Your task to perform on an android device: toggle wifi Image 0: 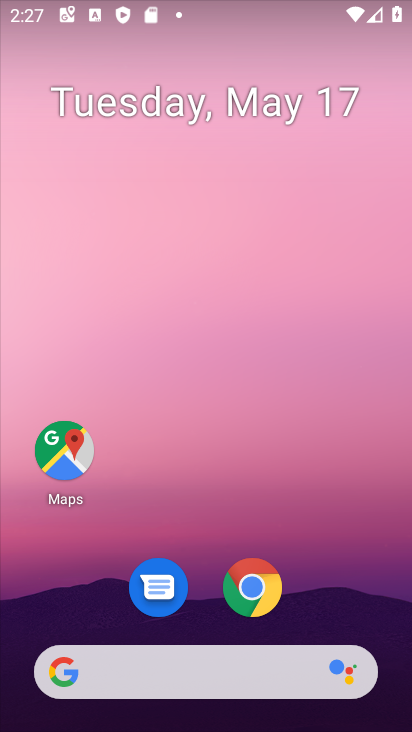
Step 0: drag from (195, 617) to (201, 212)
Your task to perform on an android device: toggle wifi Image 1: 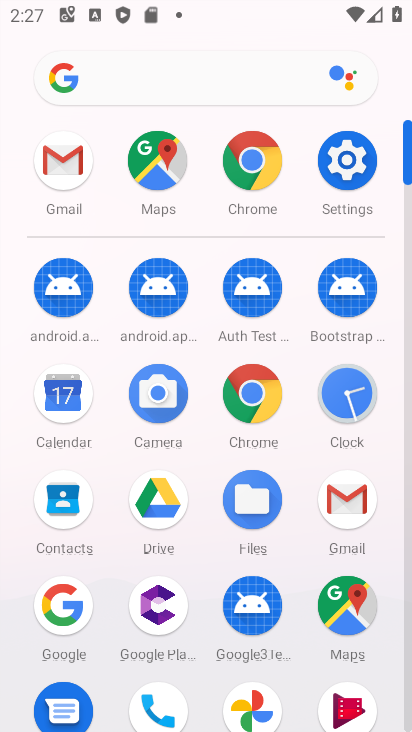
Step 1: click (337, 156)
Your task to perform on an android device: toggle wifi Image 2: 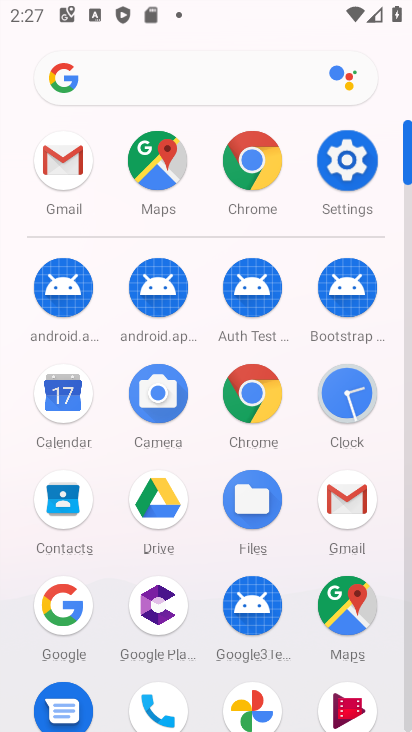
Step 2: click (336, 155)
Your task to perform on an android device: toggle wifi Image 3: 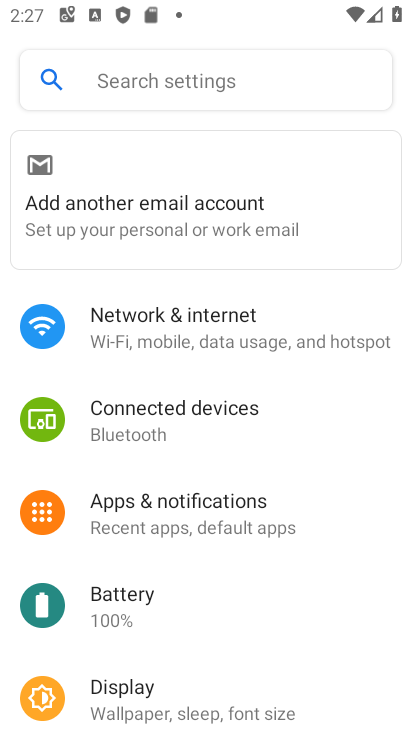
Step 3: click (185, 343)
Your task to perform on an android device: toggle wifi Image 4: 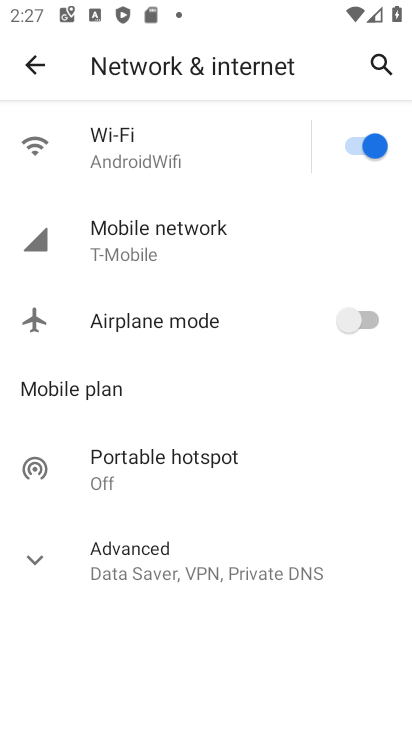
Step 4: click (370, 143)
Your task to perform on an android device: toggle wifi Image 5: 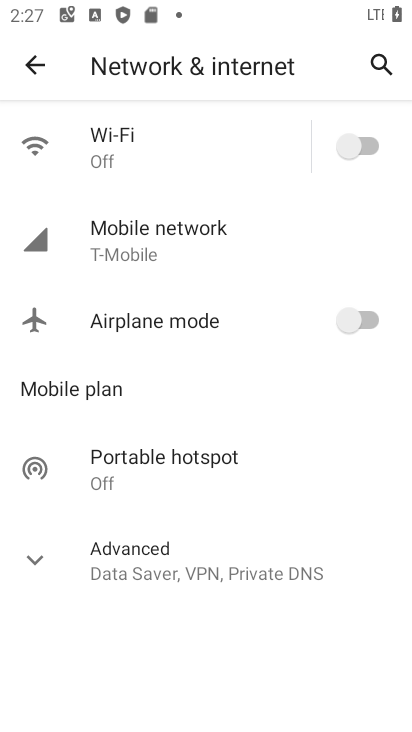
Step 5: task complete